Your task to perform on an android device: toggle javascript in the chrome app Image 0: 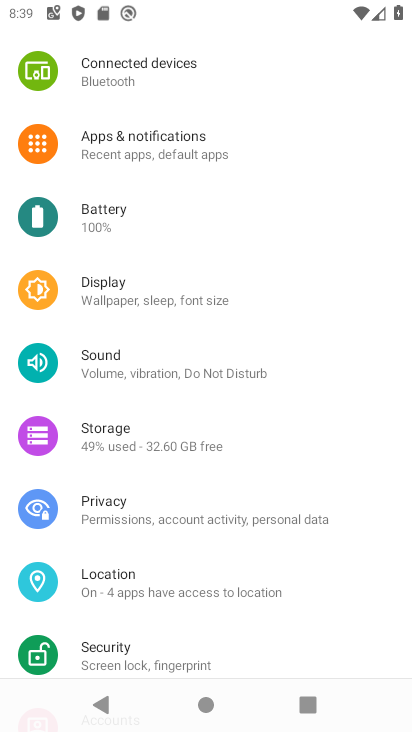
Step 0: press home button
Your task to perform on an android device: toggle javascript in the chrome app Image 1: 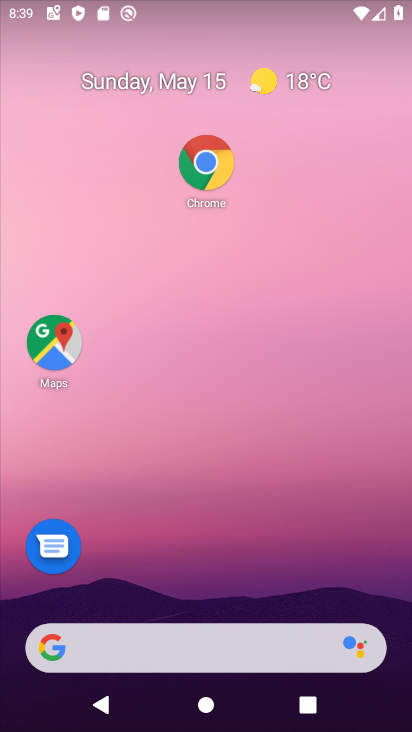
Step 1: drag from (301, 538) to (257, 217)
Your task to perform on an android device: toggle javascript in the chrome app Image 2: 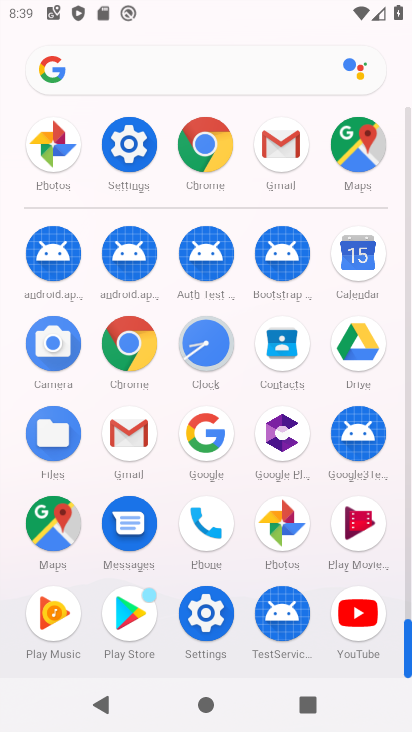
Step 2: click (113, 340)
Your task to perform on an android device: toggle javascript in the chrome app Image 3: 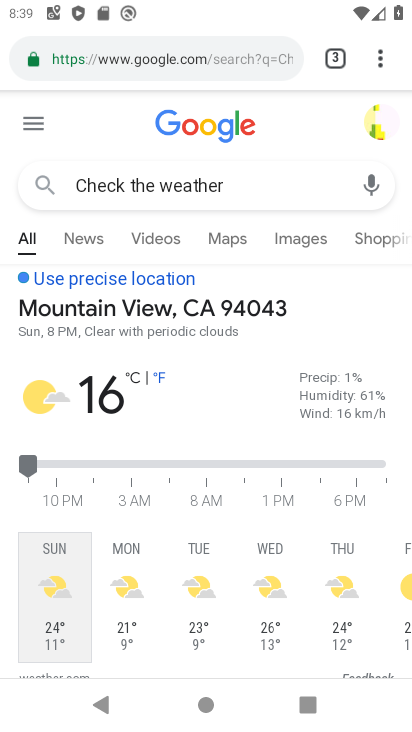
Step 3: click (373, 58)
Your task to perform on an android device: toggle javascript in the chrome app Image 4: 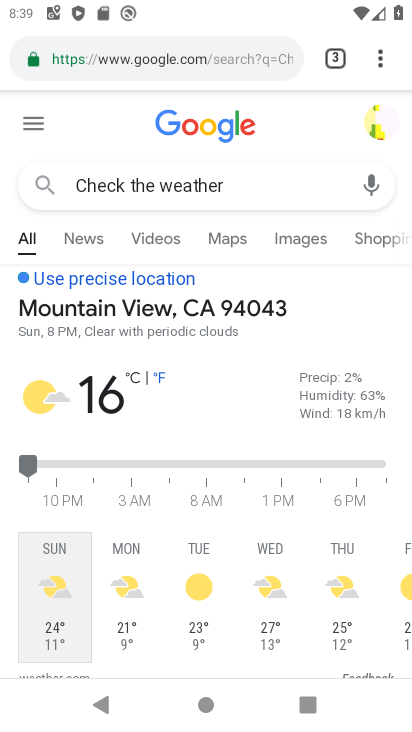
Step 4: click (373, 49)
Your task to perform on an android device: toggle javascript in the chrome app Image 5: 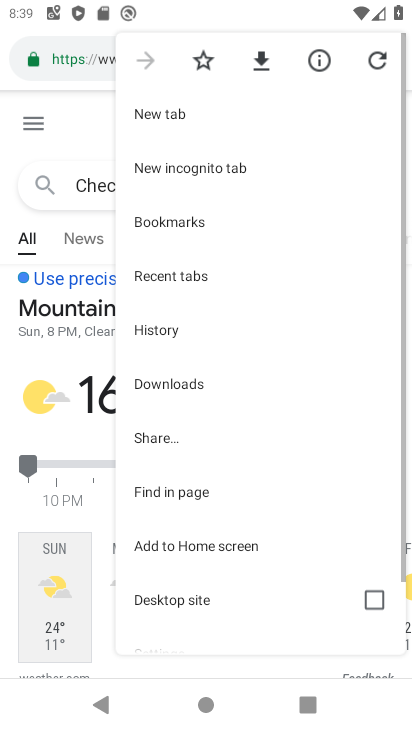
Step 5: drag from (230, 599) to (311, 272)
Your task to perform on an android device: toggle javascript in the chrome app Image 6: 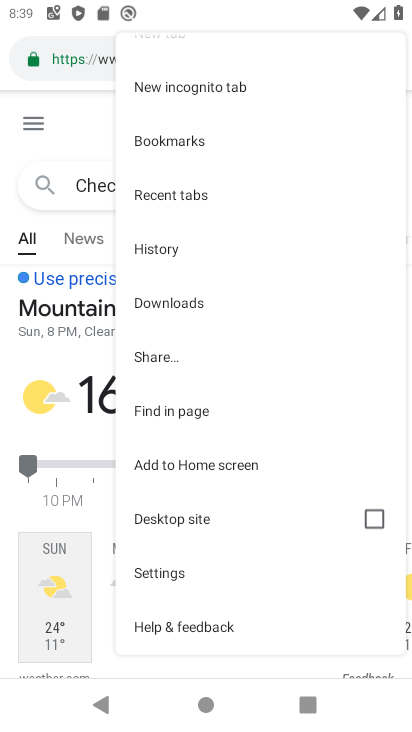
Step 6: click (199, 561)
Your task to perform on an android device: toggle javascript in the chrome app Image 7: 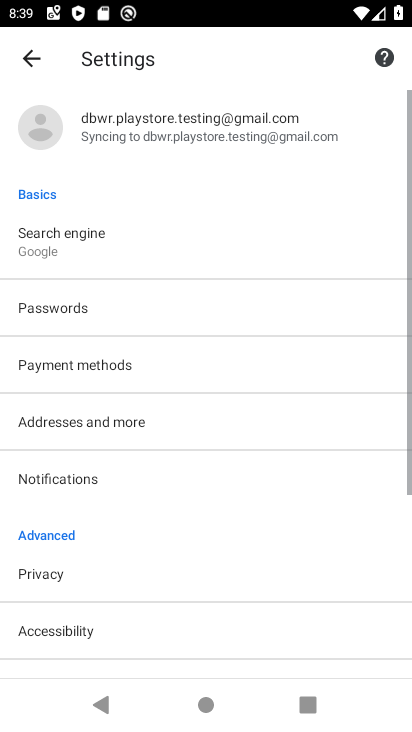
Step 7: drag from (188, 615) to (306, 230)
Your task to perform on an android device: toggle javascript in the chrome app Image 8: 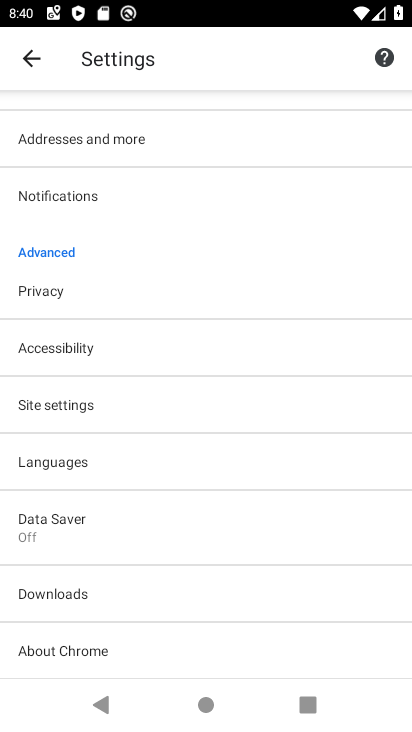
Step 8: click (113, 402)
Your task to perform on an android device: toggle javascript in the chrome app Image 9: 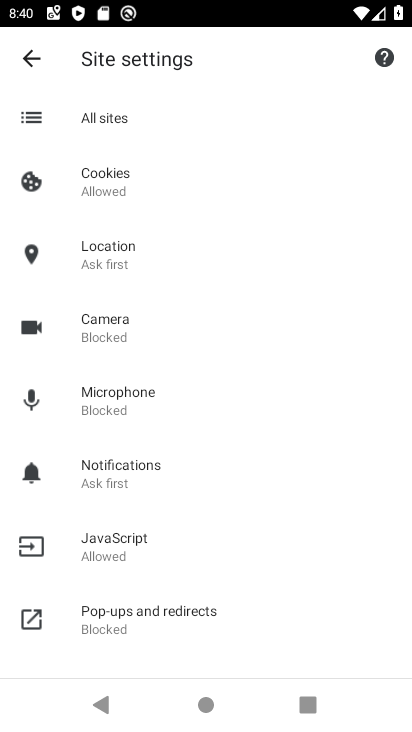
Step 9: drag from (143, 607) to (150, 523)
Your task to perform on an android device: toggle javascript in the chrome app Image 10: 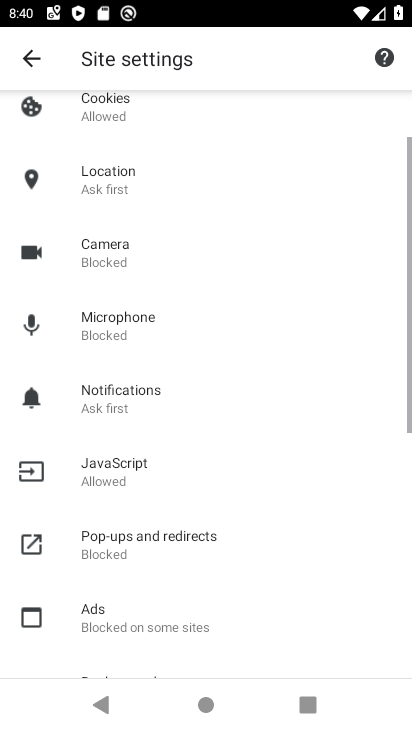
Step 10: click (139, 459)
Your task to perform on an android device: toggle javascript in the chrome app Image 11: 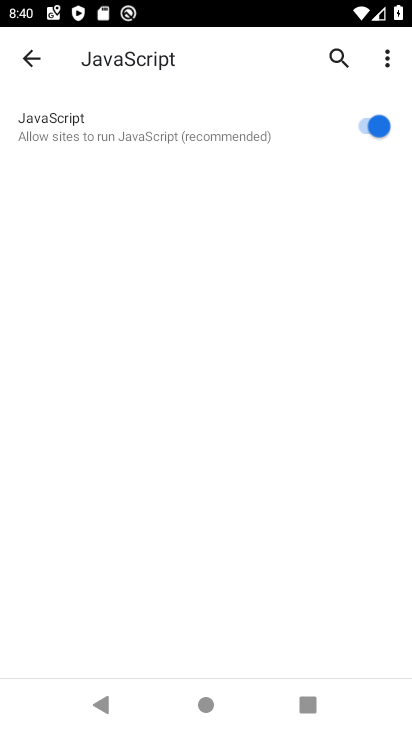
Step 11: click (354, 119)
Your task to perform on an android device: toggle javascript in the chrome app Image 12: 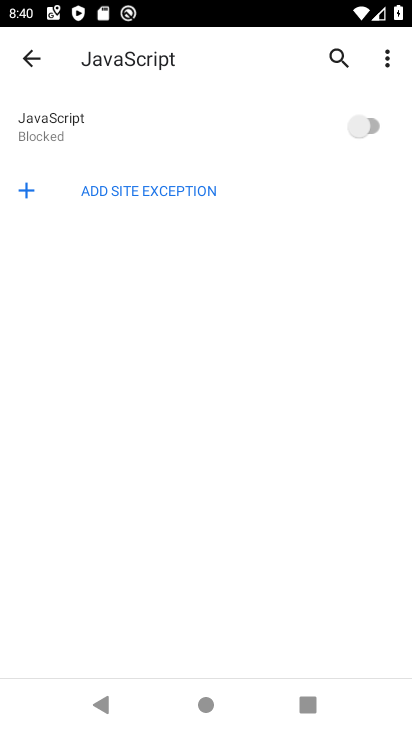
Step 12: task complete